Your task to perform on an android device: Go to Wikipedia Image 0: 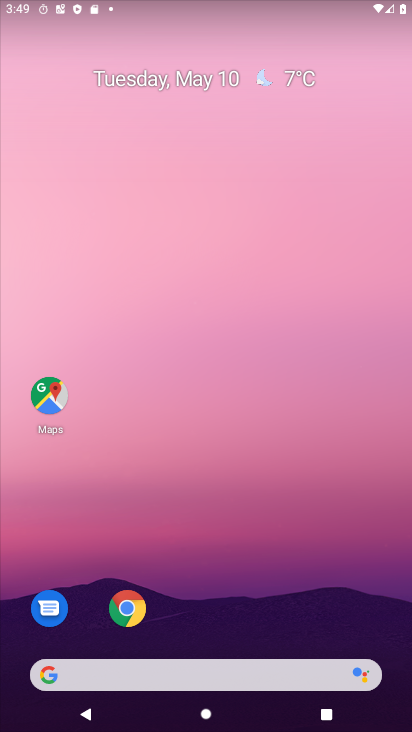
Step 0: click (126, 617)
Your task to perform on an android device: Go to Wikipedia Image 1: 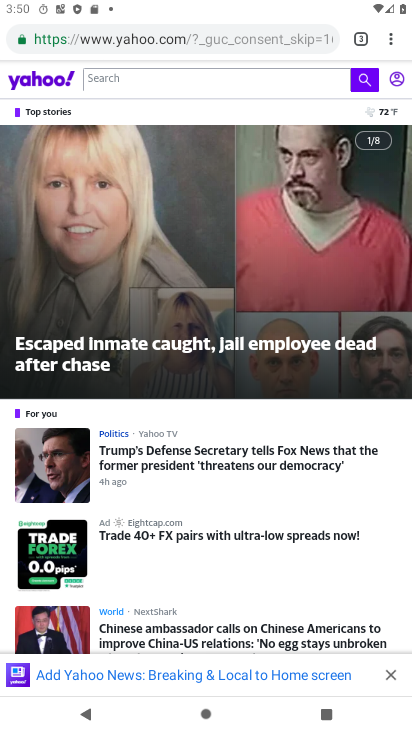
Step 1: click (225, 39)
Your task to perform on an android device: Go to Wikipedia Image 2: 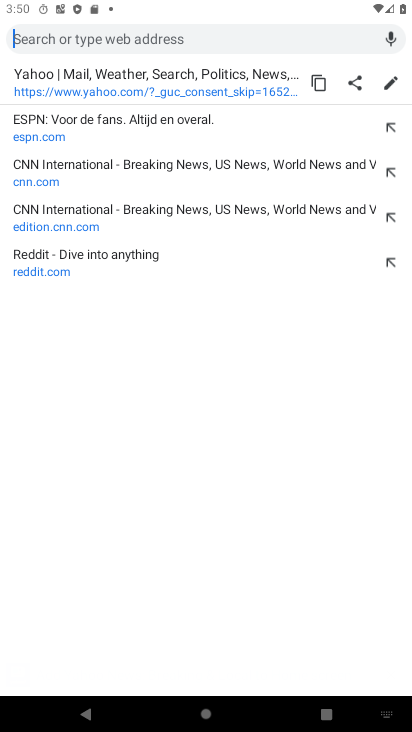
Step 2: type "wikipedia"
Your task to perform on an android device: Go to Wikipedia Image 3: 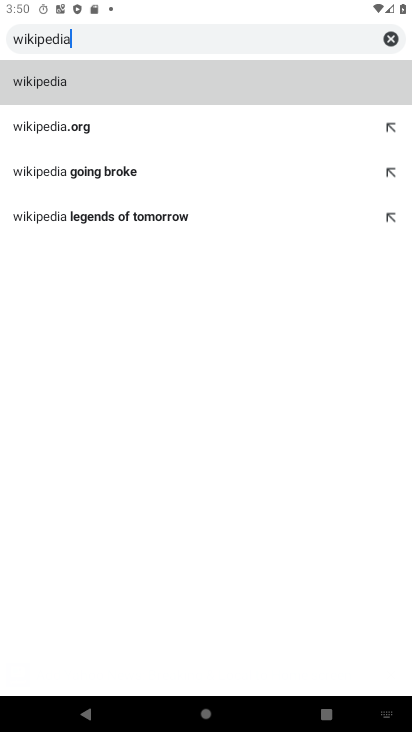
Step 3: click (50, 85)
Your task to perform on an android device: Go to Wikipedia Image 4: 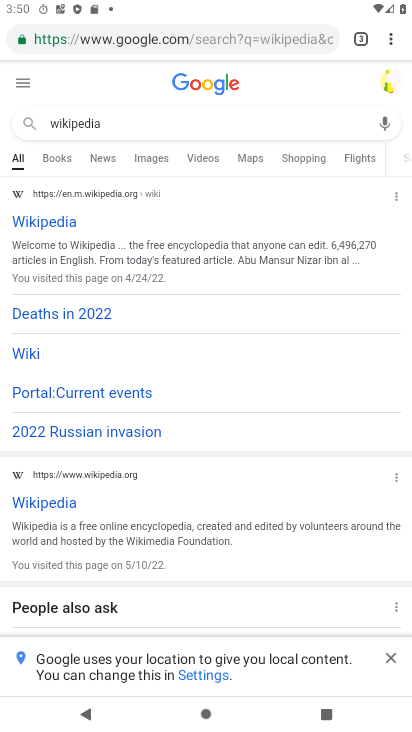
Step 4: click (25, 222)
Your task to perform on an android device: Go to Wikipedia Image 5: 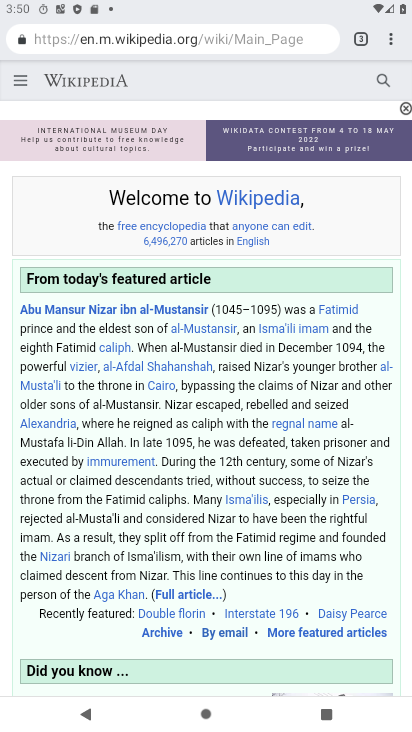
Step 5: task complete